Your task to perform on an android device: delete the emails in spam in the gmail app Image 0: 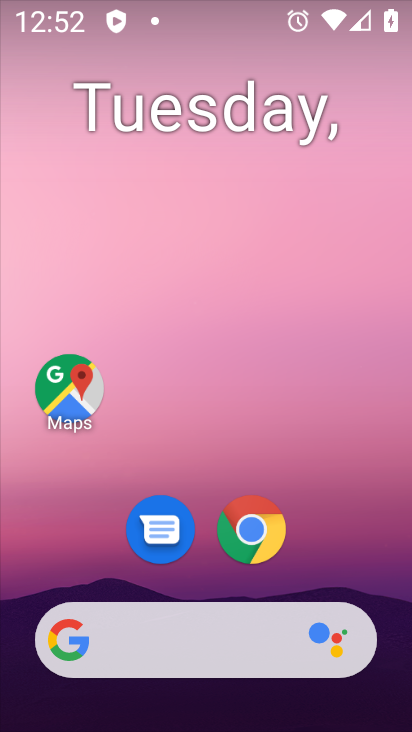
Step 0: drag from (208, 642) to (217, 256)
Your task to perform on an android device: delete the emails in spam in the gmail app Image 1: 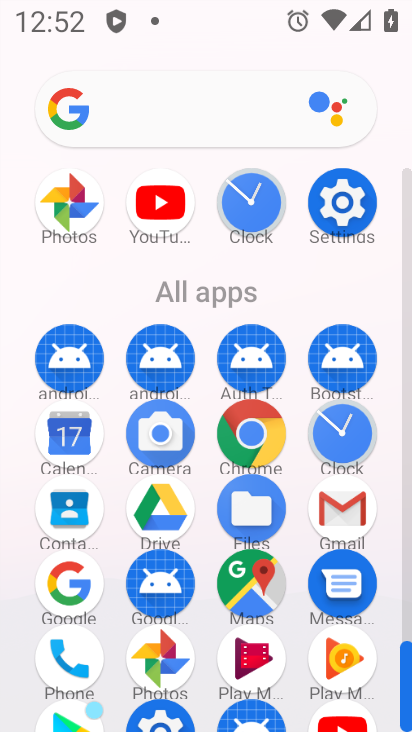
Step 1: click (353, 523)
Your task to perform on an android device: delete the emails in spam in the gmail app Image 2: 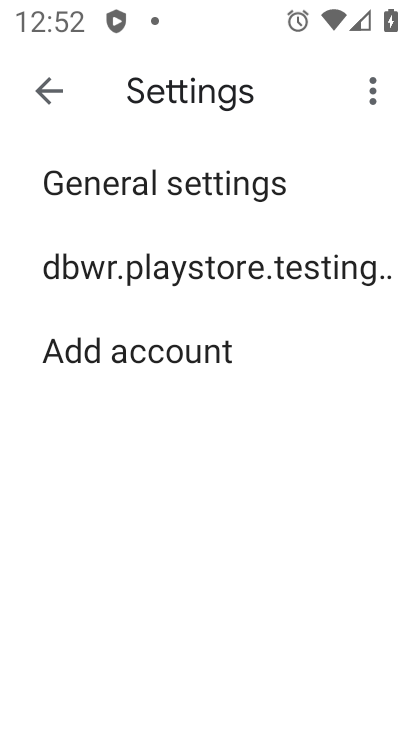
Step 2: click (51, 88)
Your task to perform on an android device: delete the emails in spam in the gmail app Image 3: 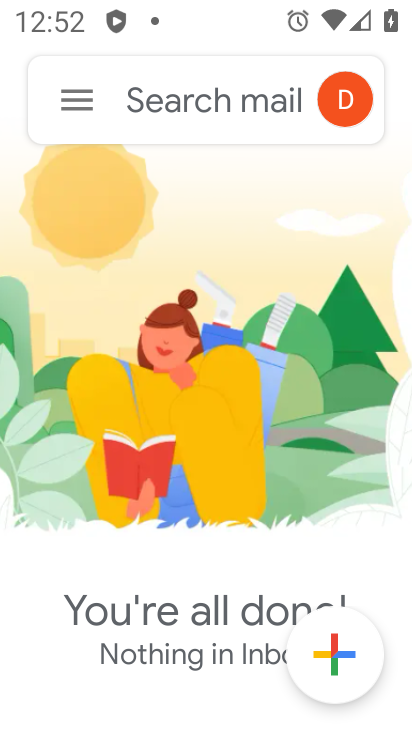
Step 3: click (51, 88)
Your task to perform on an android device: delete the emails in spam in the gmail app Image 4: 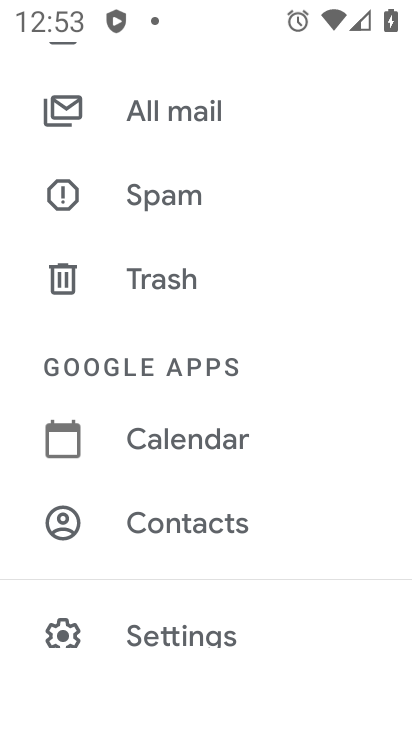
Step 4: drag from (172, 192) to (226, 557)
Your task to perform on an android device: delete the emails in spam in the gmail app Image 5: 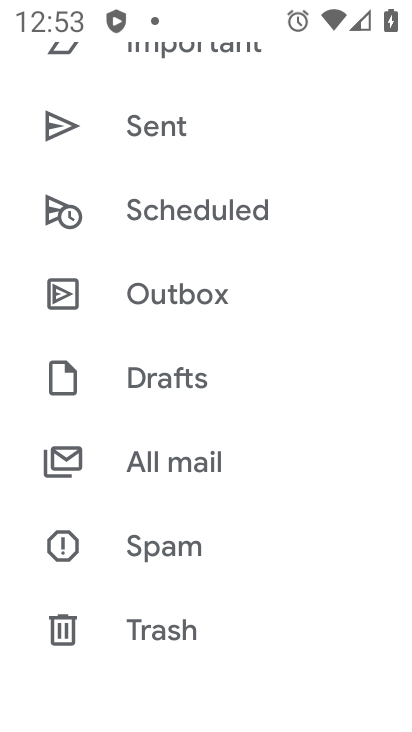
Step 5: click (227, 554)
Your task to perform on an android device: delete the emails in spam in the gmail app Image 6: 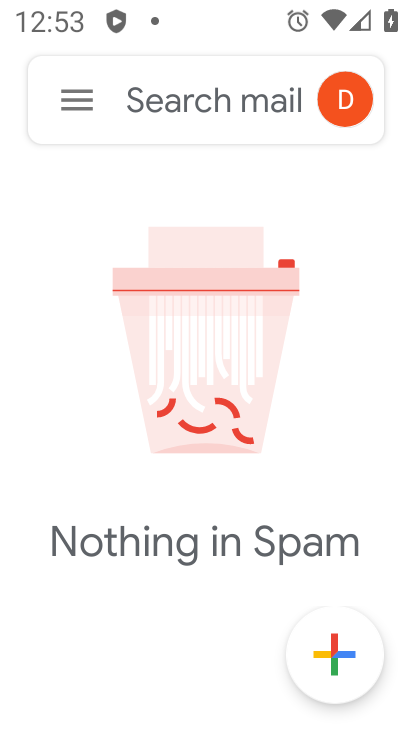
Step 6: task complete